Your task to perform on an android device: Is it going to rain tomorrow? Image 0: 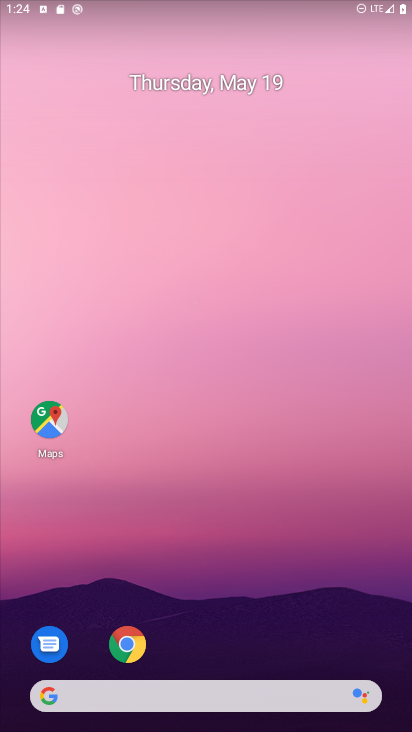
Step 0: drag from (290, 637) to (249, 84)
Your task to perform on an android device: Is it going to rain tomorrow? Image 1: 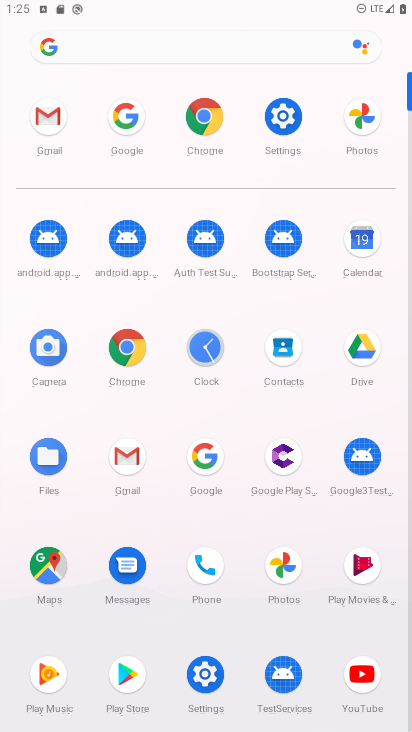
Step 1: click (210, 464)
Your task to perform on an android device: Is it going to rain tomorrow? Image 2: 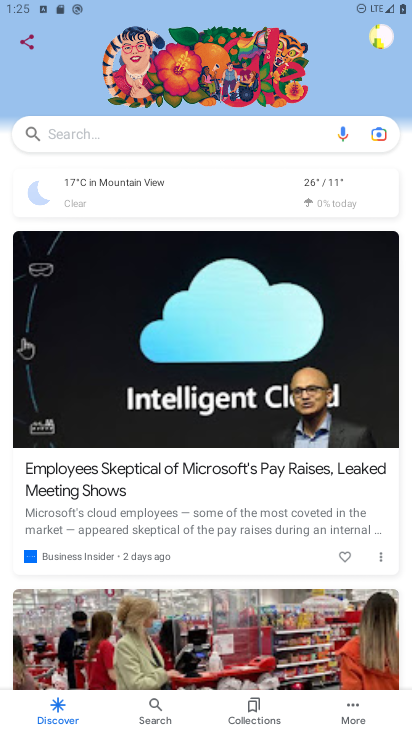
Step 2: click (139, 127)
Your task to perform on an android device: Is it going to rain tomorrow? Image 3: 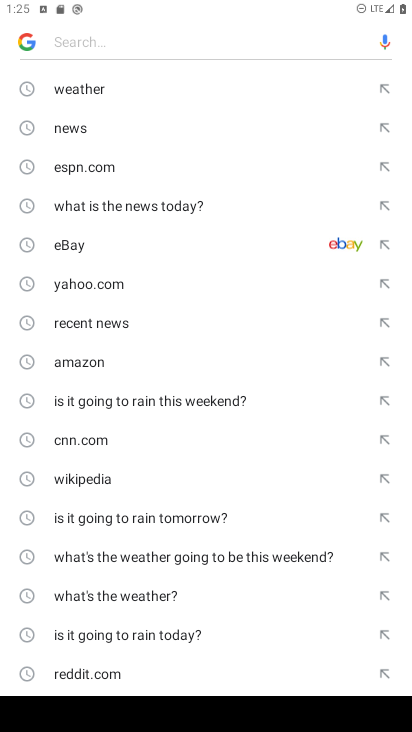
Step 3: click (220, 512)
Your task to perform on an android device: Is it going to rain tomorrow? Image 4: 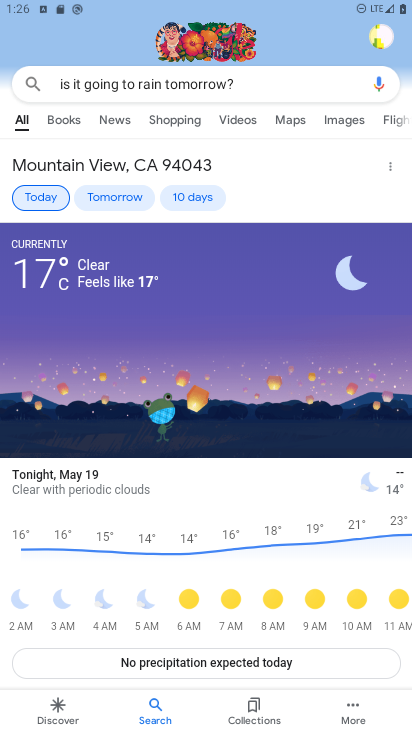
Step 4: task complete